Your task to perform on an android device: turn on data saver in the chrome app Image 0: 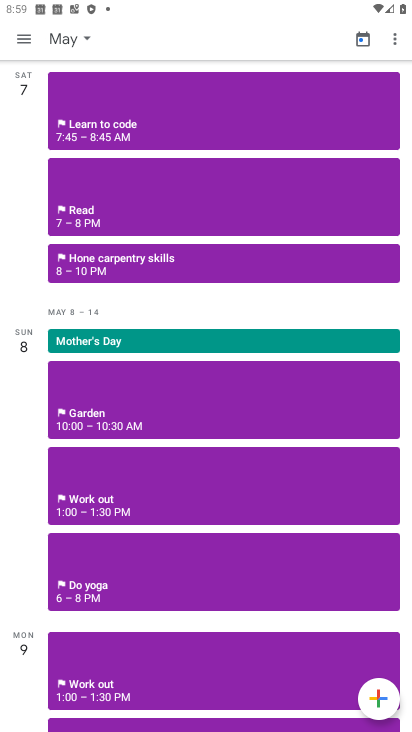
Step 0: drag from (198, 623) to (272, 233)
Your task to perform on an android device: turn on data saver in the chrome app Image 1: 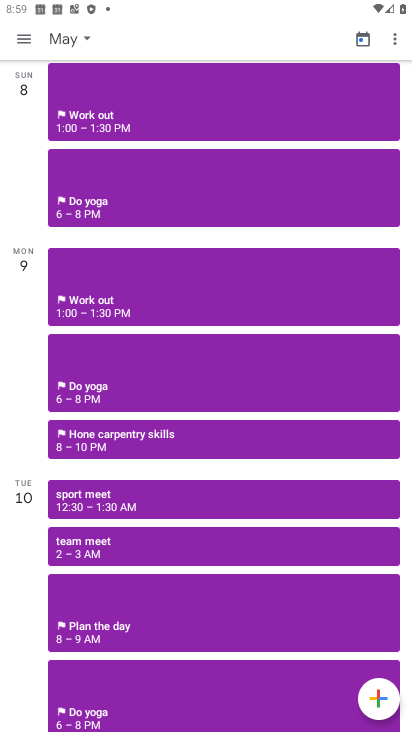
Step 1: drag from (180, 652) to (236, 249)
Your task to perform on an android device: turn on data saver in the chrome app Image 2: 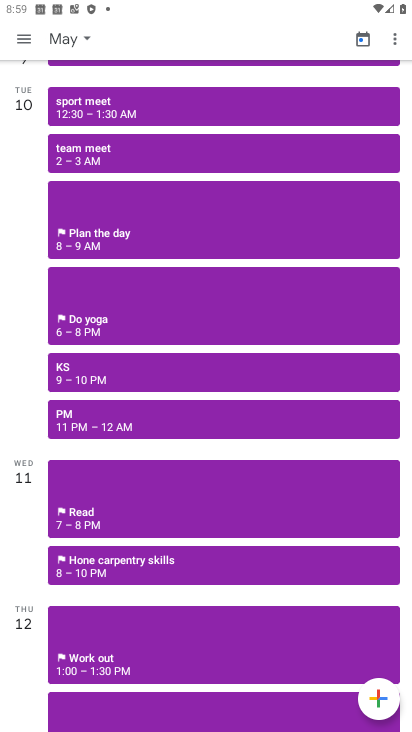
Step 2: drag from (204, 631) to (217, 354)
Your task to perform on an android device: turn on data saver in the chrome app Image 3: 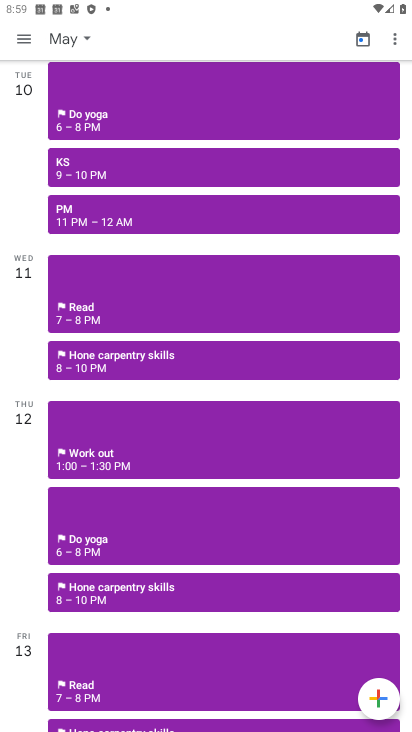
Step 3: drag from (198, 649) to (203, 415)
Your task to perform on an android device: turn on data saver in the chrome app Image 4: 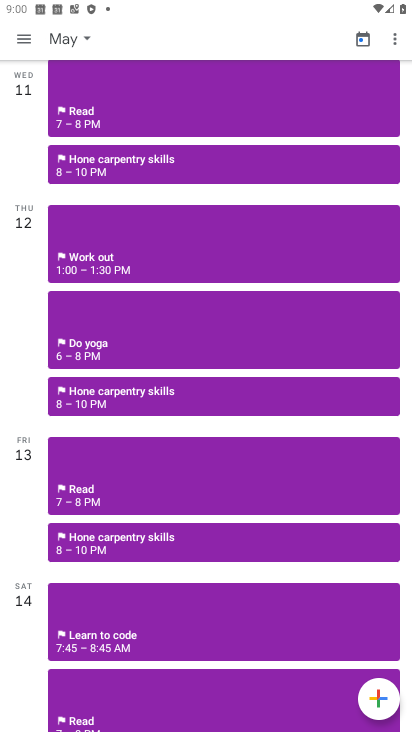
Step 4: drag from (156, 577) to (210, 95)
Your task to perform on an android device: turn on data saver in the chrome app Image 5: 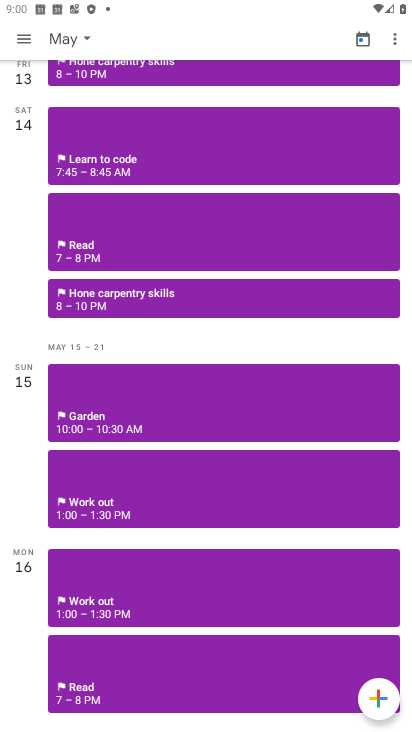
Step 5: drag from (142, 590) to (163, 104)
Your task to perform on an android device: turn on data saver in the chrome app Image 6: 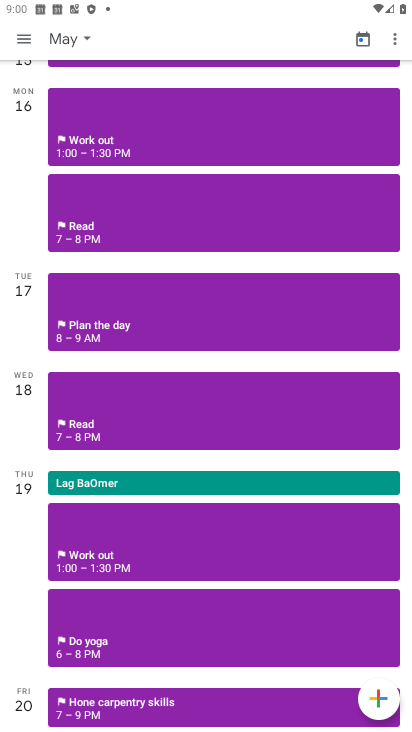
Step 6: drag from (181, 571) to (131, 293)
Your task to perform on an android device: turn on data saver in the chrome app Image 7: 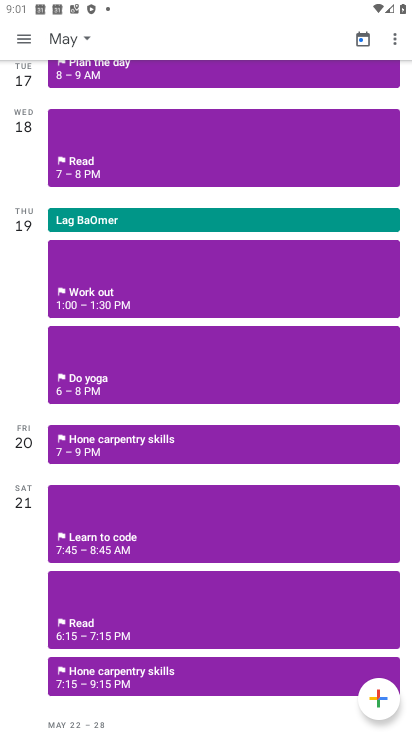
Step 7: click (14, 27)
Your task to perform on an android device: turn on data saver in the chrome app Image 8: 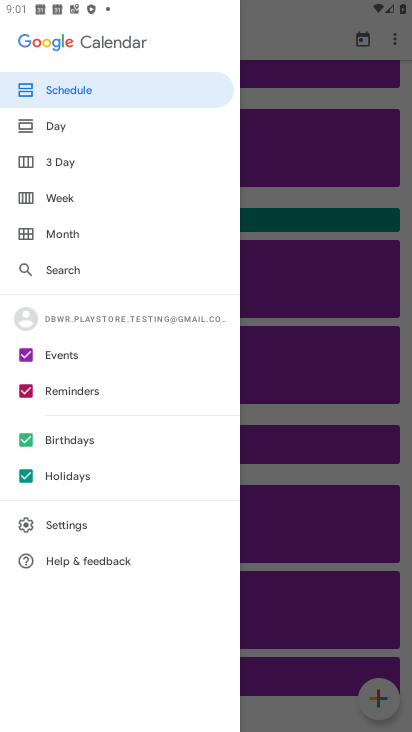
Step 8: drag from (330, 477) to (399, 235)
Your task to perform on an android device: turn on data saver in the chrome app Image 9: 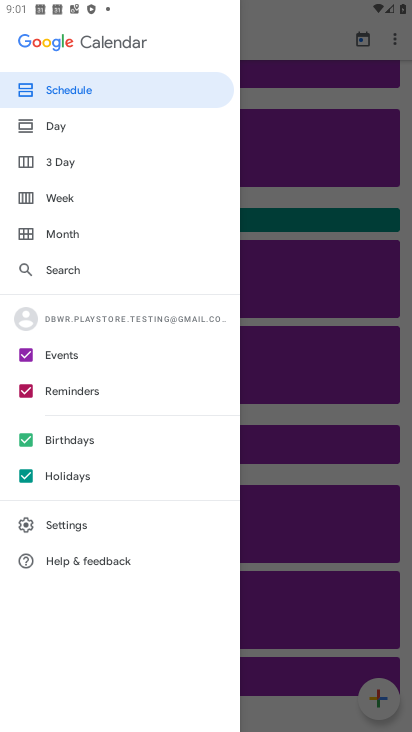
Step 9: press home button
Your task to perform on an android device: turn on data saver in the chrome app Image 10: 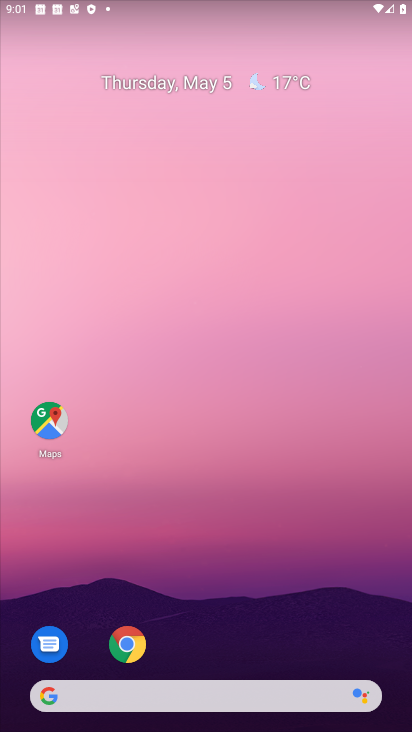
Step 10: click (138, 637)
Your task to perform on an android device: turn on data saver in the chrome app Image 11: 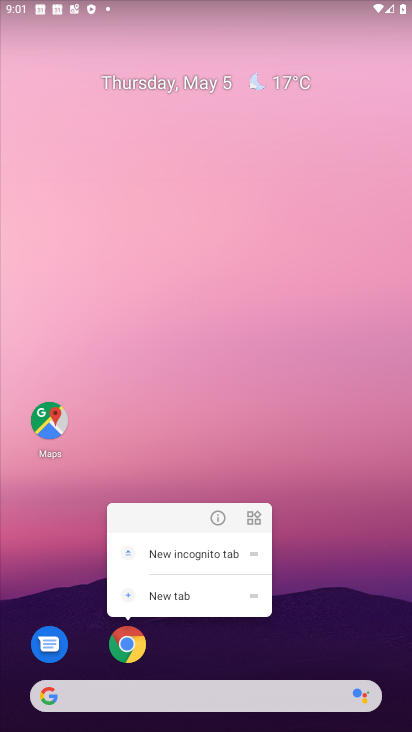
Step 11: click (195, 639)
Your task to perform on an android device: turn on data saver in the chrome app Image 12: 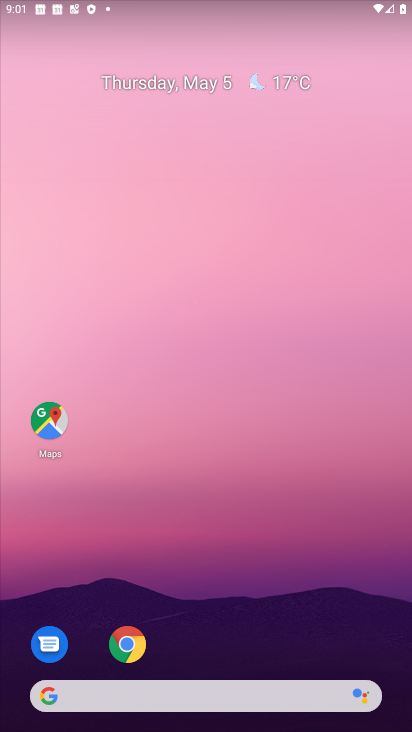
Step 12: drag from (192, 636) to (257, 79)
Your task to perform on an android device: turn on data saver in the chrome app Image 13: 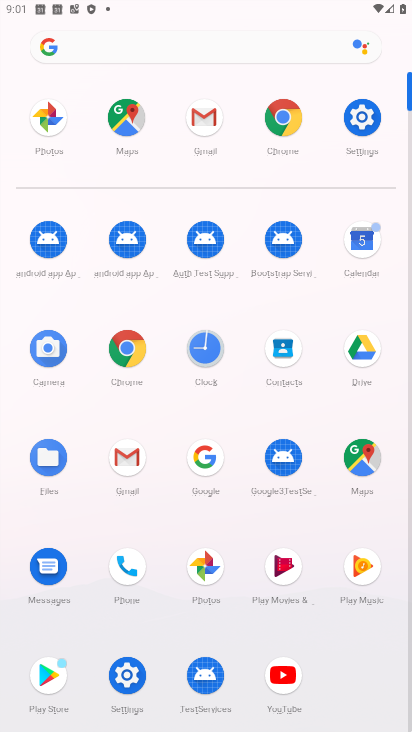
Step 13: click (122, 343)
Your task to perform on an android device: turn on data saver in the chrome app Image 14: 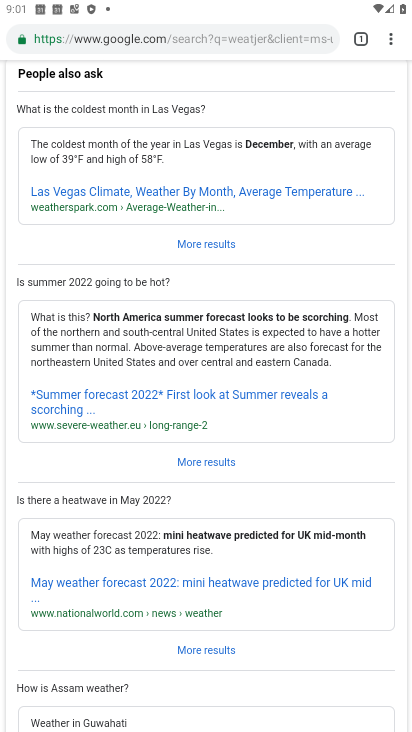
Step 14: click (400, 32)
Your task to perform on an android device: turn on data saver in the chrome app Image 15: 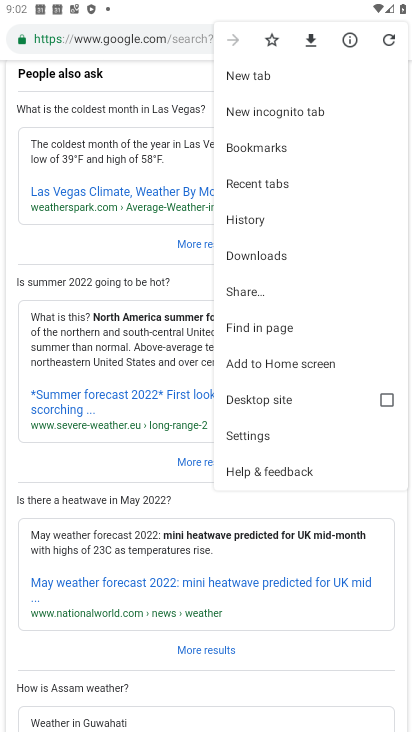
Step 15: click (240, 432)
Your task to perform on an android device: turn on data saver in the chrome app Image 16: 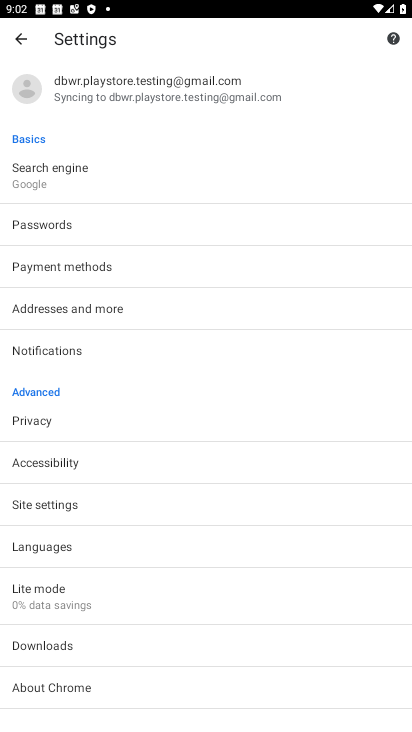
Step 16: click (66, 571)
Your task to perform on an android device: turn on data saver in the chrome app Image 17: 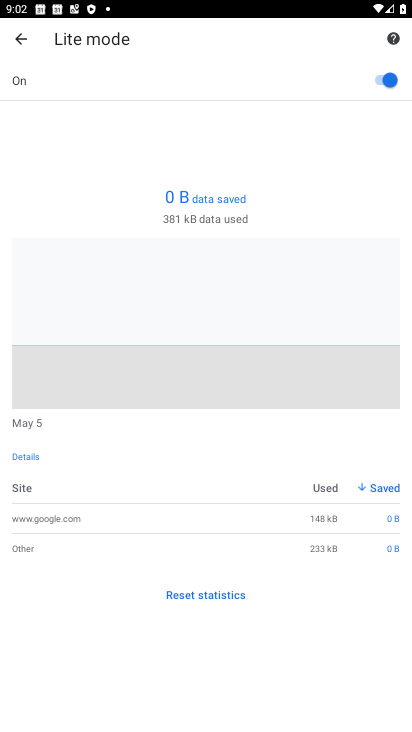
Step 17: task complete